Your task to perform on an android device: turn off location Image 0: 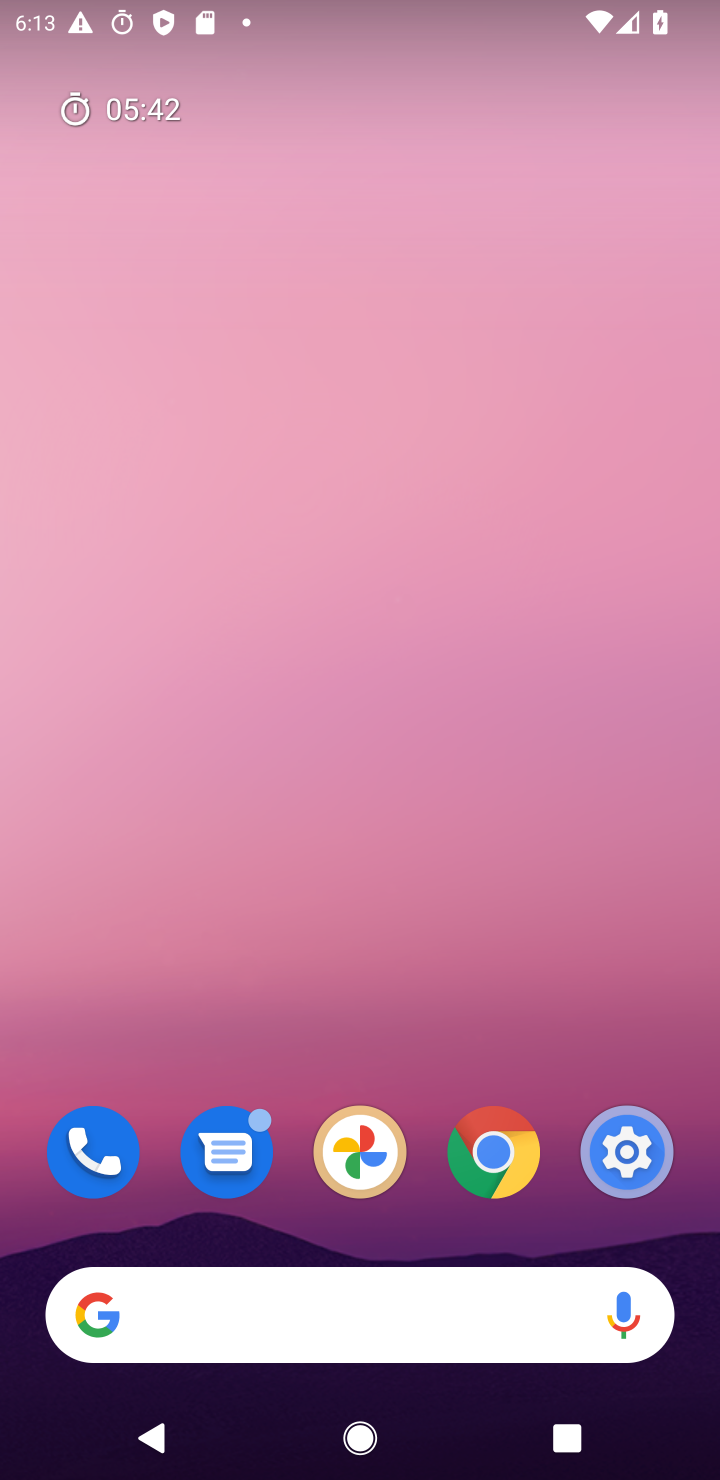
Step 0: drag from (549, 1090) to (535, 130)
Your task to perform on an android device: turn off location Image 1: 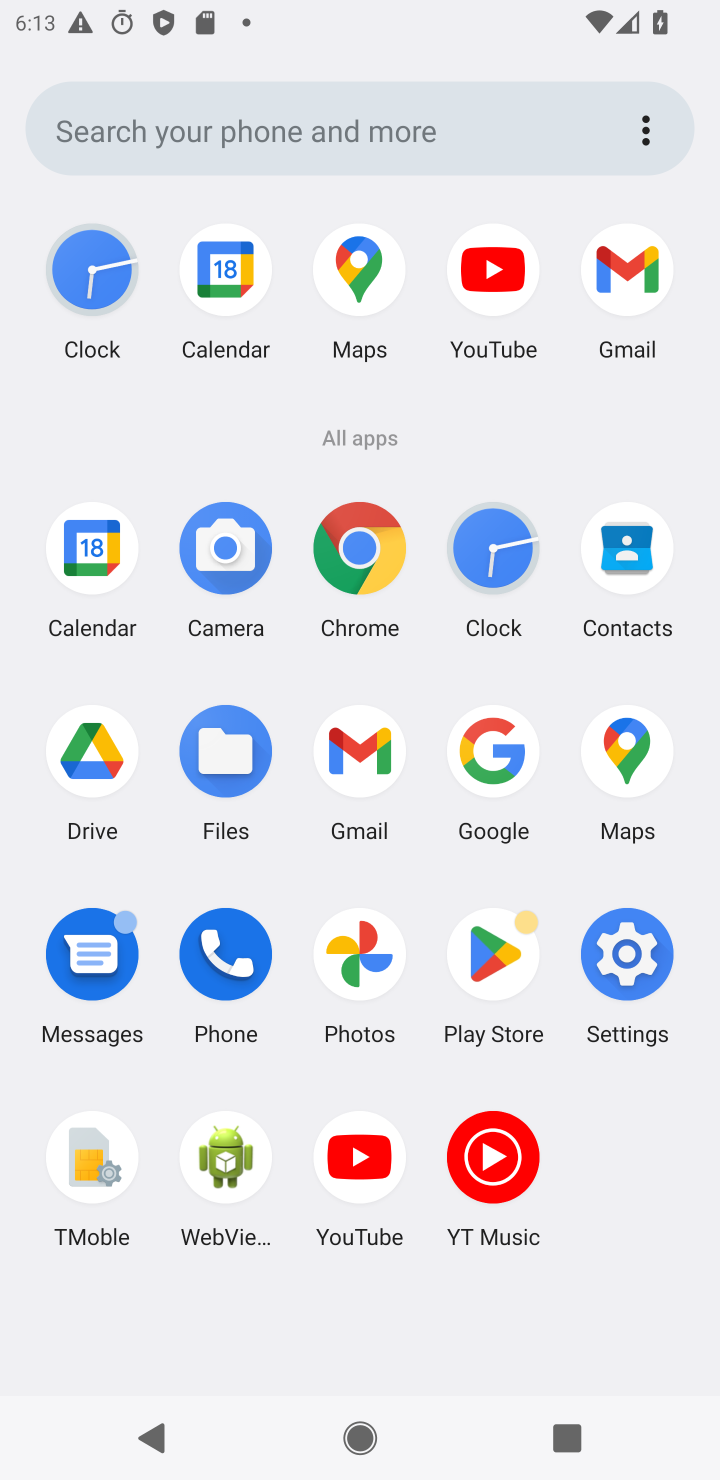
Step 1: click (628, 936)
Your task to perform on an android device: turn off location Image 2: 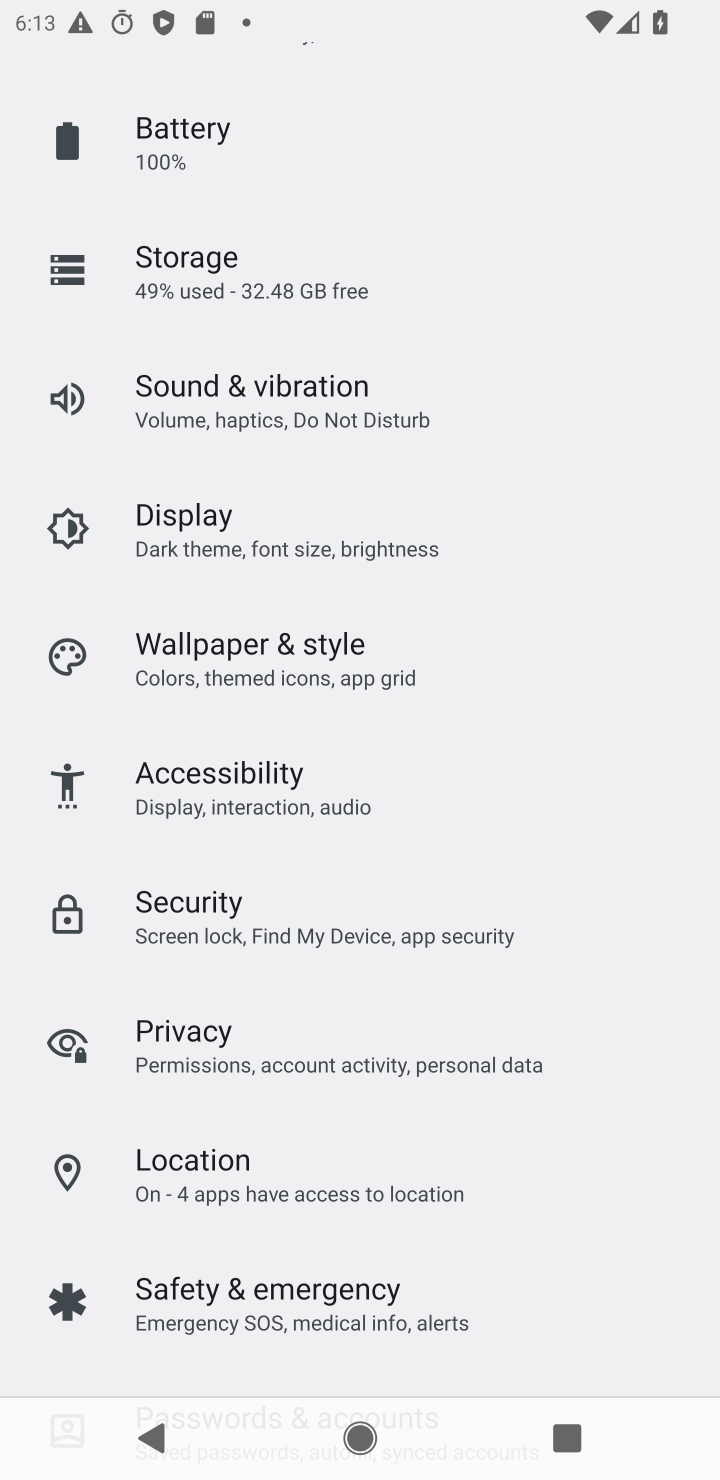
Step 2: click (188, 1194)
Your task to perform on an android device: turn off location Image 3: 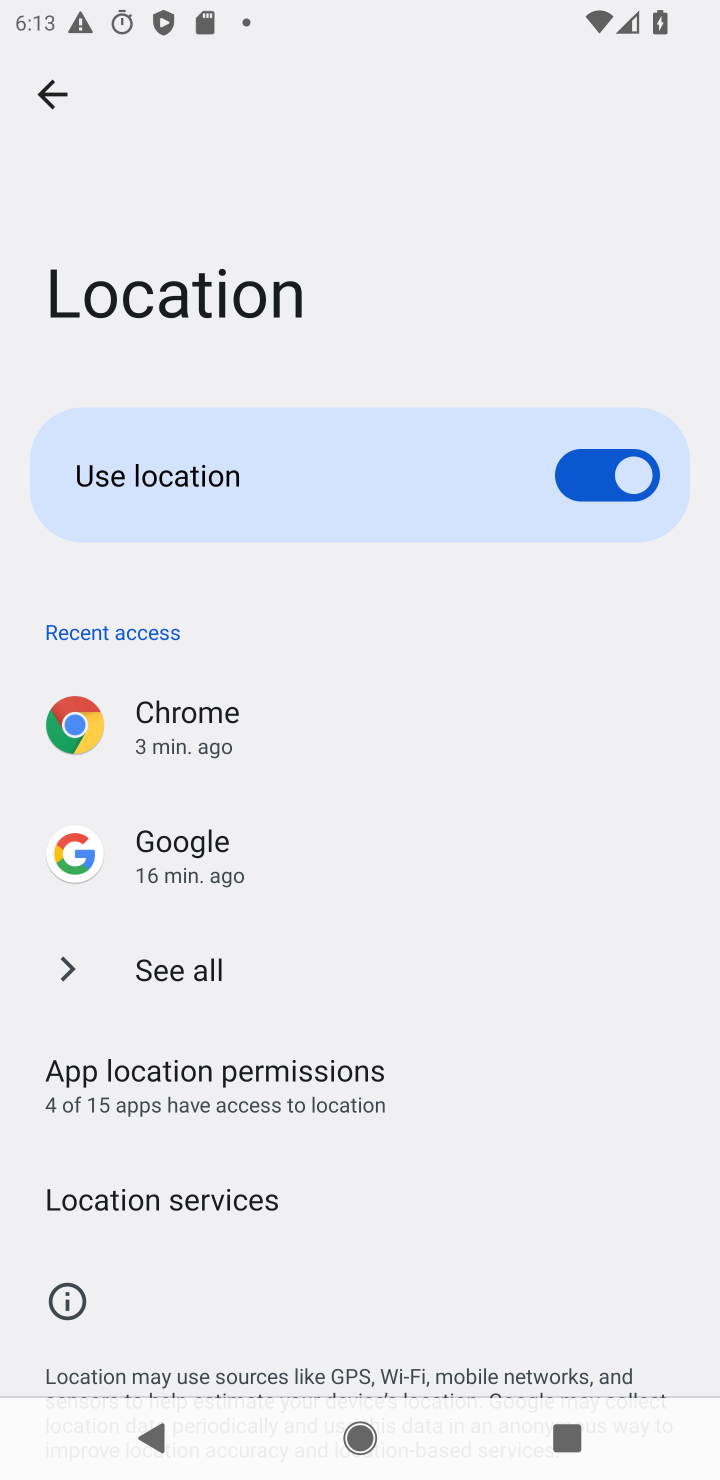
Step 3: click (613, 441)
Your task to perform on an android device: turn off location Image 4: 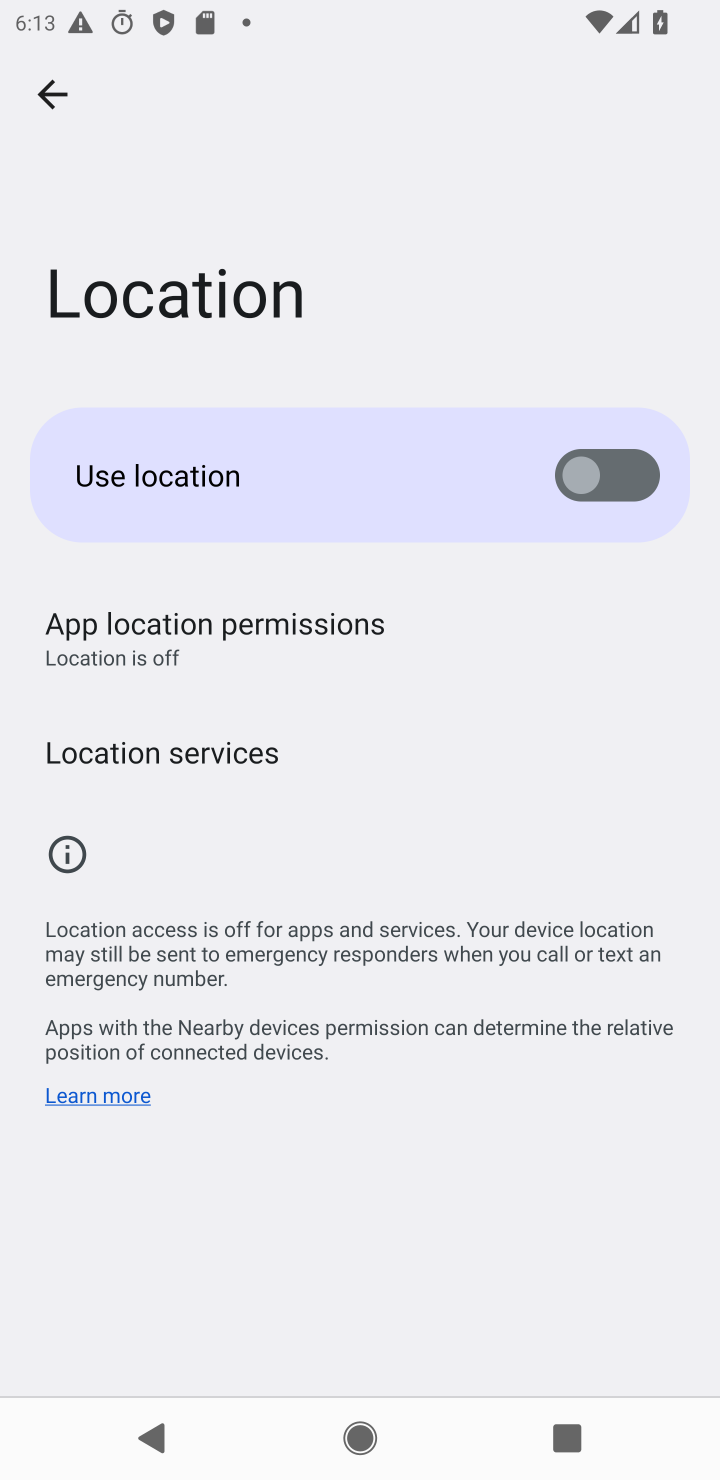
Step 4: task complete